Your task to perform on an android device: Search for Italian restaurants on Maps Image 0: 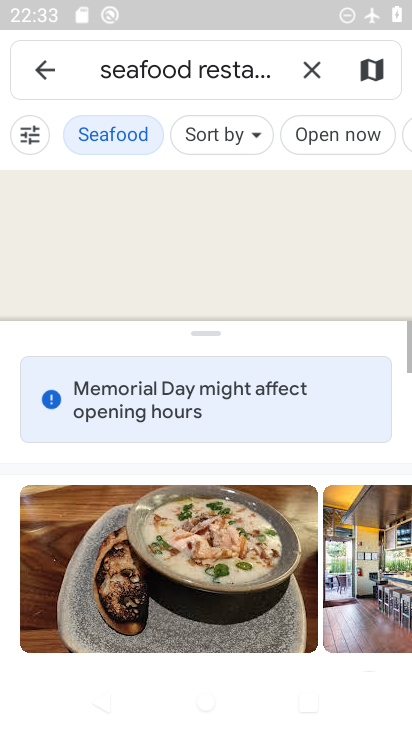
Step 0: press home button
Your task to perform on an android device: Search for Italian restaurants on Maps Image 1: 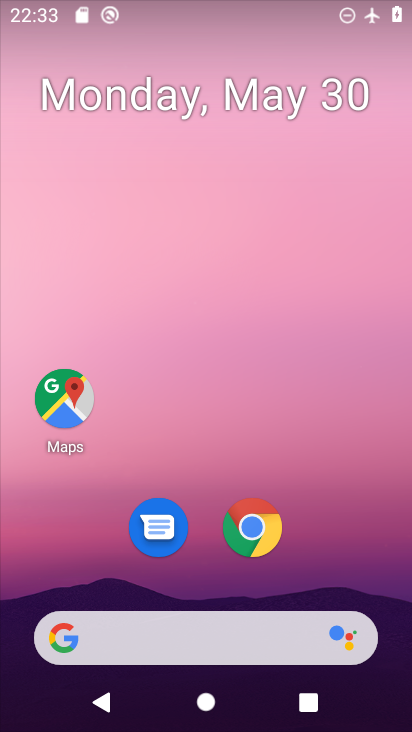
Step 1: click (50, 384)
Your task to perform on an android device: Search for Italian restaurants on Maps Image 2: 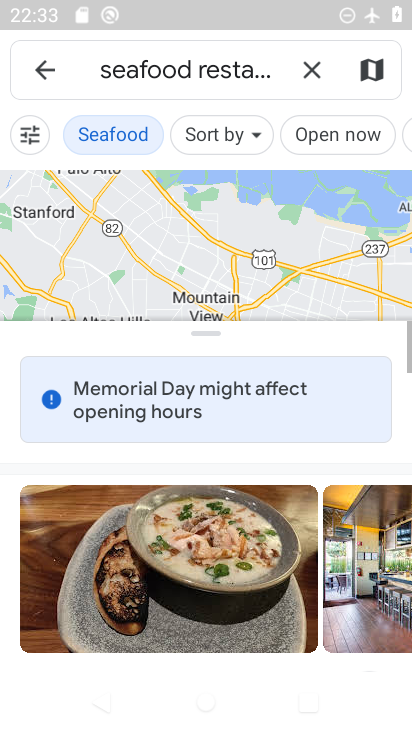
Step 2: click (315, 60)
Your task to perform on an android device: Search for Italian restaurants on Maps Image 3: 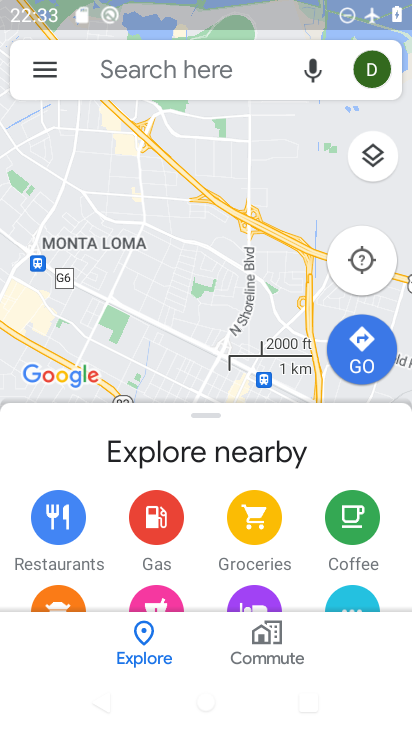
Step 3: click (215, 63)
Your task to perform on an android device: Search for Italian restaurants on Maps Image 4: 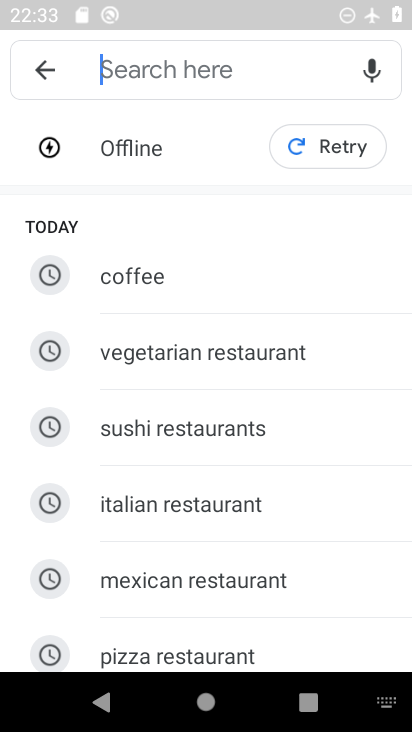
Step 4: click (193, 505)
Your task to perform on an android device: Search for Italian restaurants on Maps Image 5: 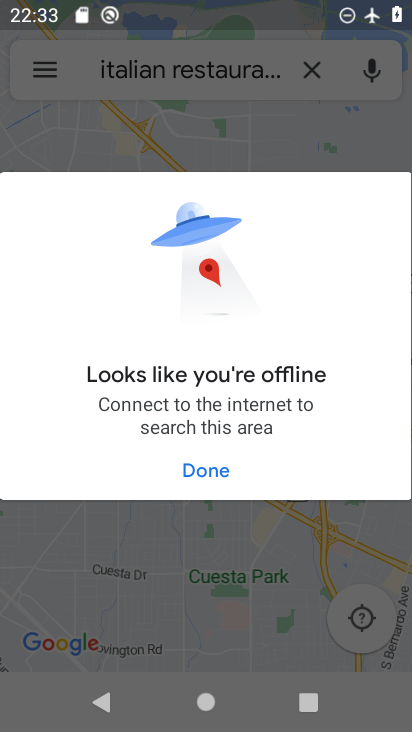
Step 5: click (215, 472)
Your task to perform on an android device: Search for Italian restaurants on Maps Image 6: 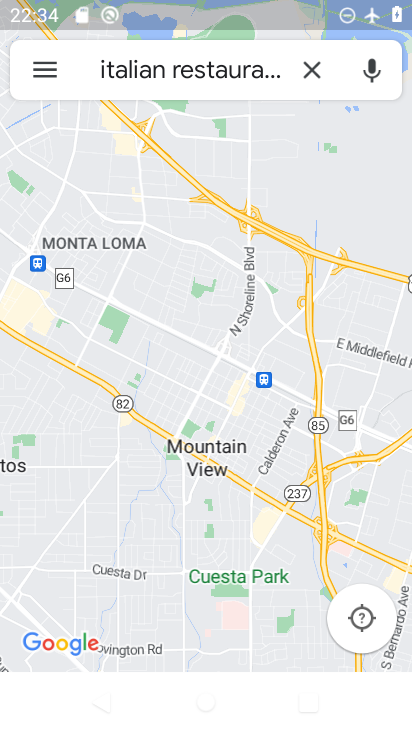
Step 6: task complete